Your task to perform on an android device: open a bookmark in the chrome app Image 0: 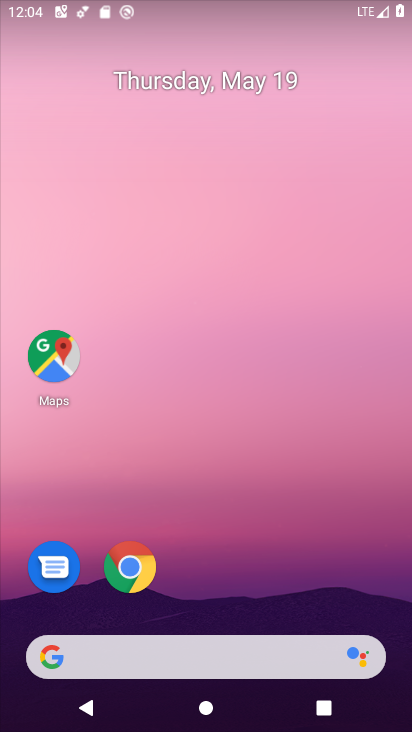
Step 0: drag from (366, 591) to (404, 43)
Your task to perform on an android device: open a bookmark in the chrome app Image 1: 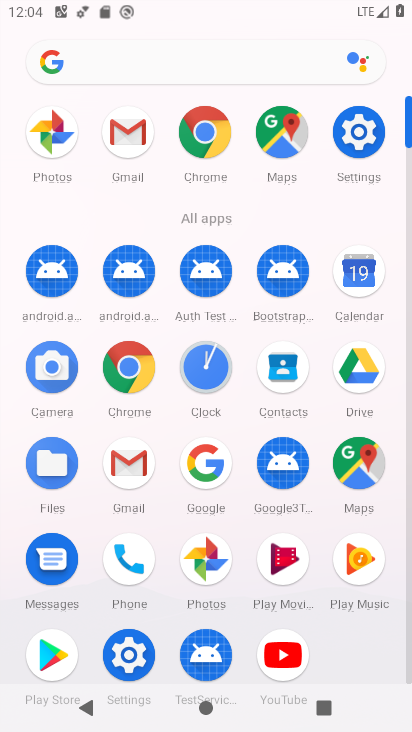
Step 1: click (218, 118)
Your task to perform on an android device: open a bookmark in the chrome app Image 2: 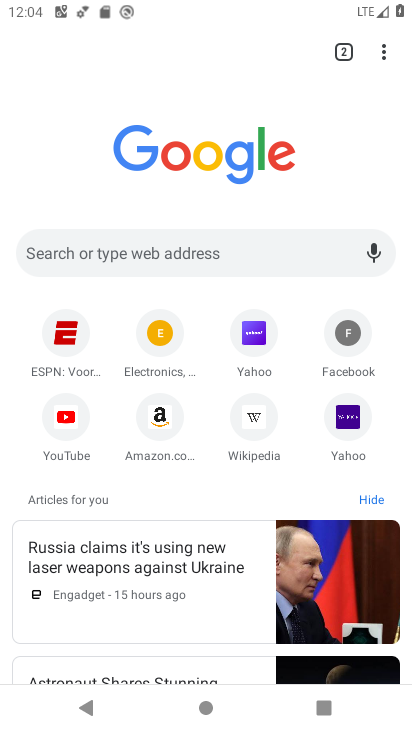
Step 2: click (373, 66)
Your task to perform on an android device: open a bookmark in the chrome app Image 3: 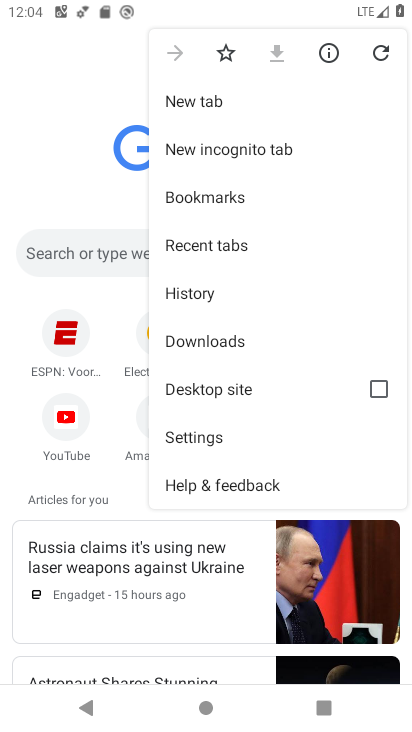
Step 3: click (195, 215)
Your task to perform on an android device: open a bookmark in the chrome app Image 4: 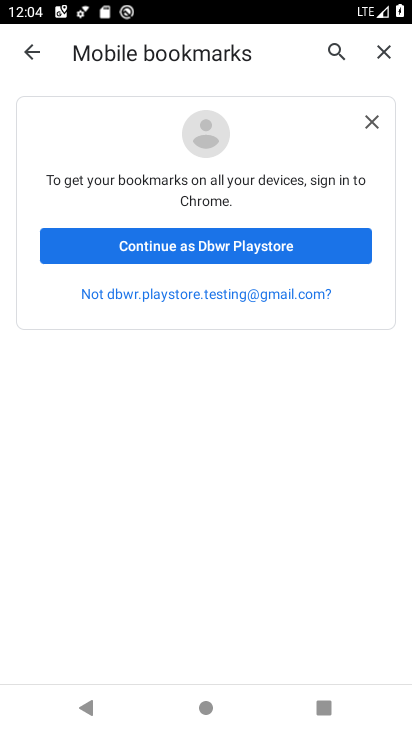
Step 4: click (217, 224)
Your task to perform on an android device: open a bookmark in the chrome app Image 5: 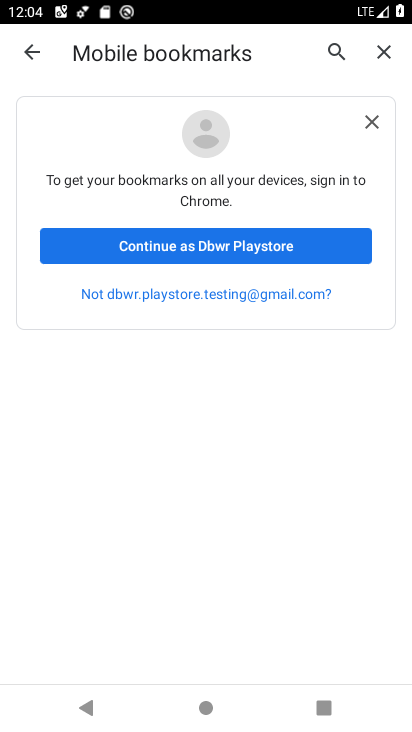
Step 5: click (221, 237)
Your task to perform on an android device: open a bookmark in the chrome app Image 6: 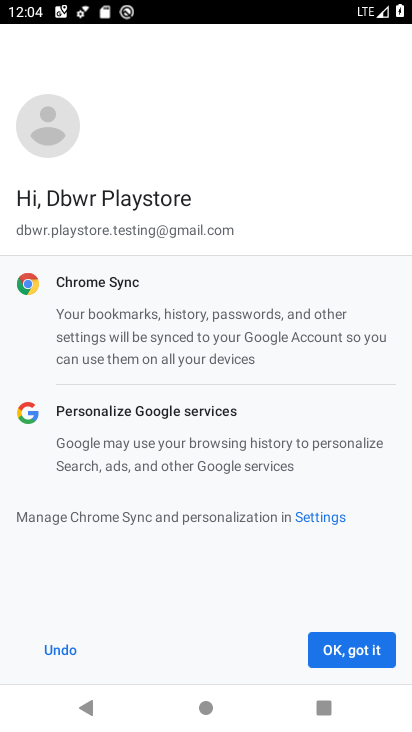
Step 6: click (317, 651)
Your task to perform on an android device: open a bookmark in the chrome app Image 7: 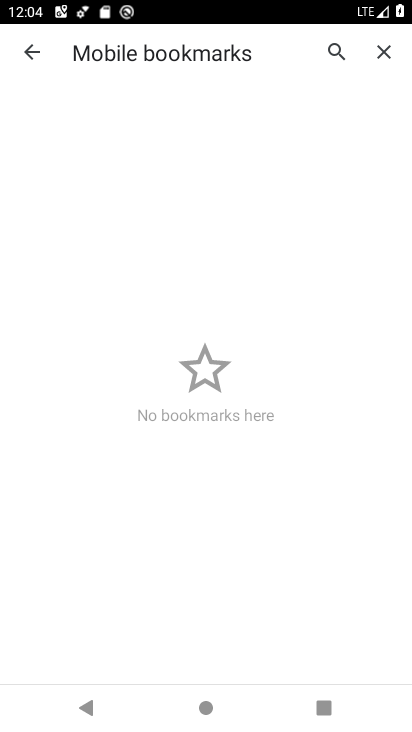
Step 7: task complete